Your task to perform on an android device: Search for pizza restaurants on Maps Image 0: 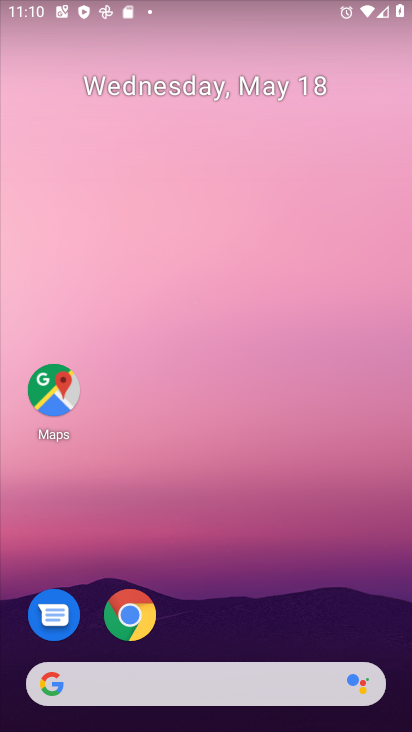
Step 0: click (69, 395)
Your task to perform on an android device: Search for pizza restaurants on Maps Image 1: 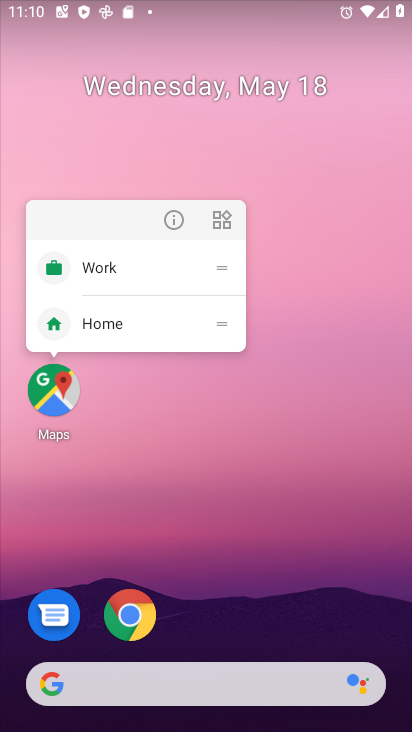
Step 1: click (61, 385)
Your task to perform on an android device: Search for pizza restaurants on Maps Image 2: 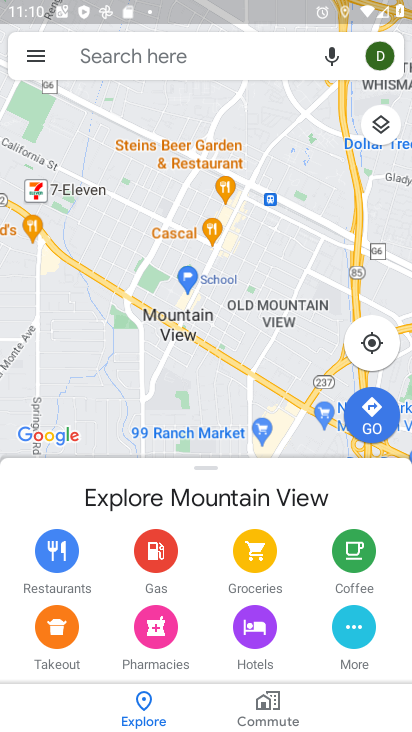
Step 2: click (120, 56)
Your task to perform on an android device: Search for pizza restaurants on Maps Image 3: 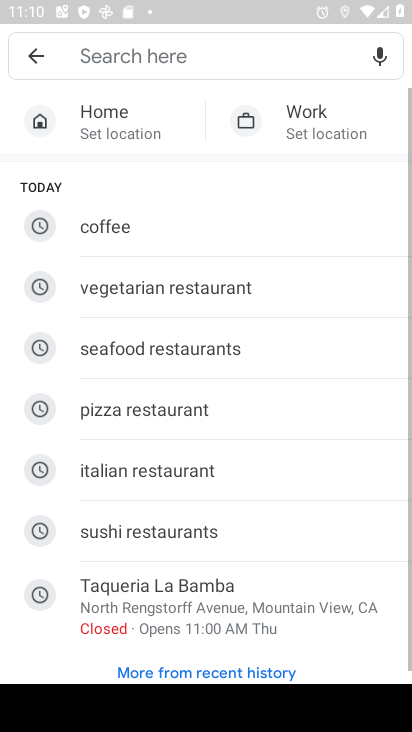
Step 3: click (147, 397)
Your task to perform on an android device: Search for pizza restaurants on Maps Image 4: 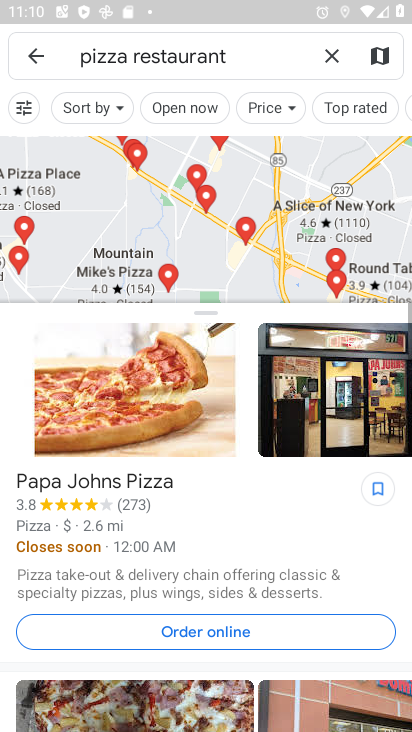
Step 4: task complete